Your task to perform on an android device: Open the web browser Image 0: 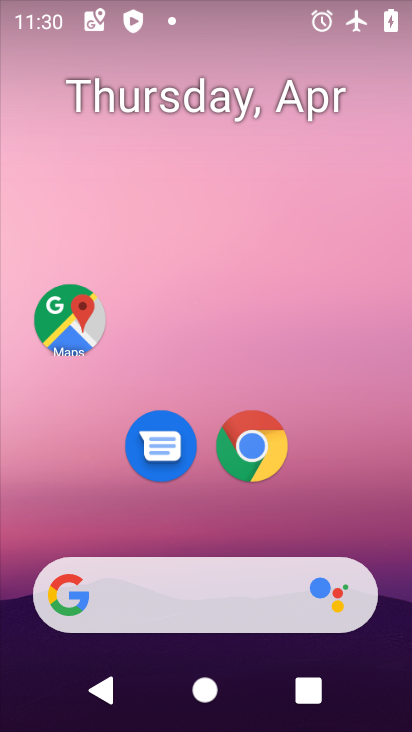
Step 0: click (255, 438)
Your task to perform on an android device: Open the web browser Image 1: 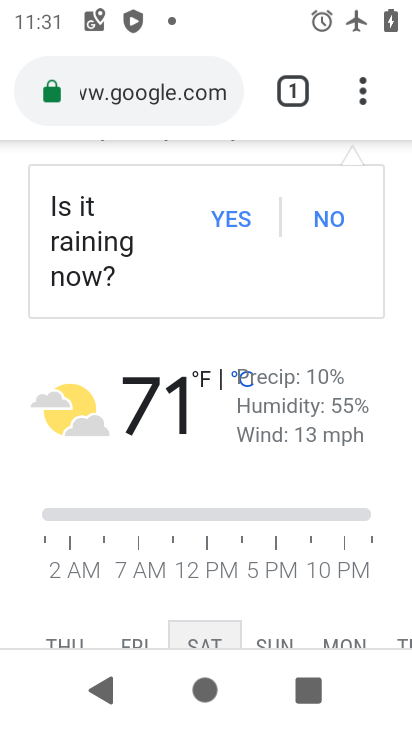
Step 1: task complete